Your task to perform on an android device: Go to display settings Image 0: 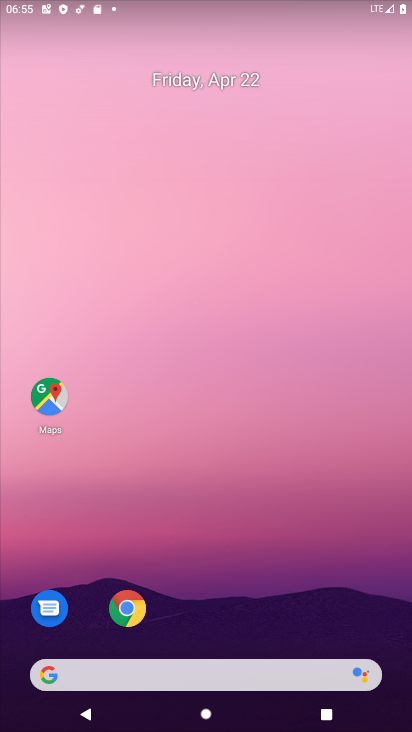
Step 0: click (205, 226)
Your task to perform on an android device: Go to display settings Image 1: 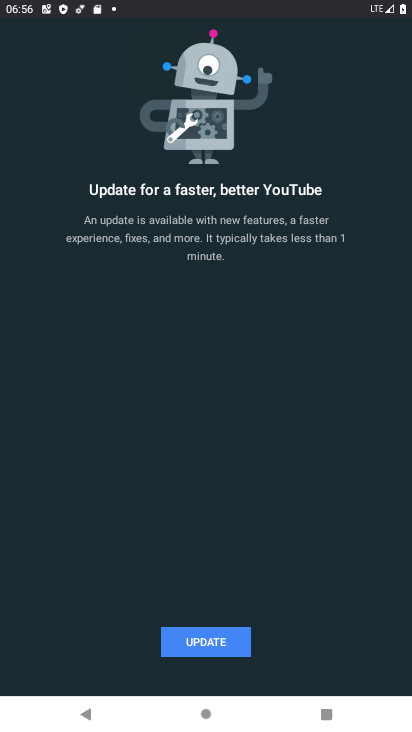
Step 1: press home button
Your task to perform on an android device: Go to display settings Image 2: 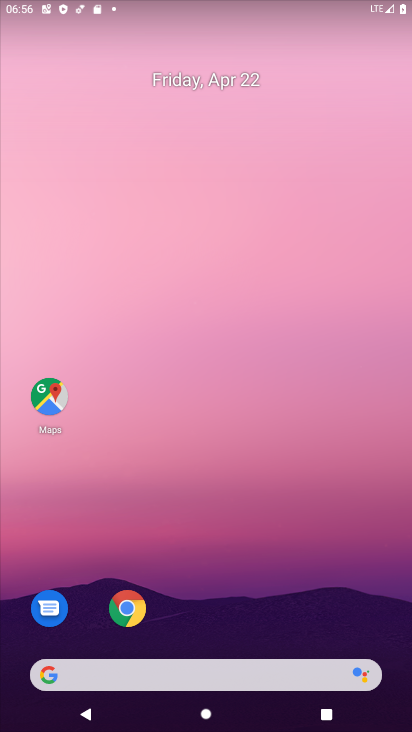
Step 2: drag from (241, 573) to (162, 230)
Your task to perform on an android device: Go to display settings Image 3: 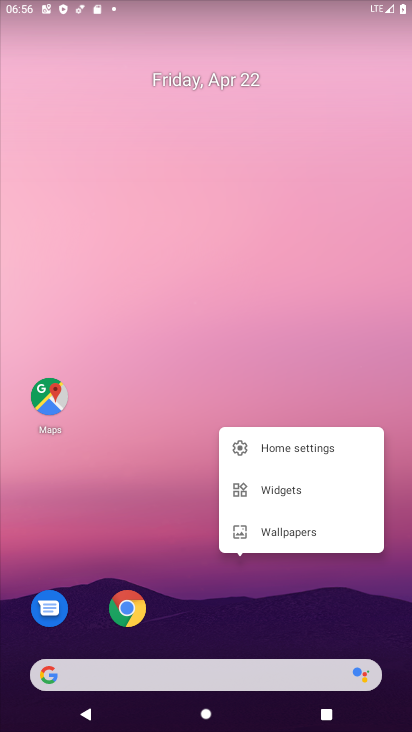
Step 3: drag from (188, 598) to (160, 184)
Your task to perform on an android device: Go to display settings Image 4: 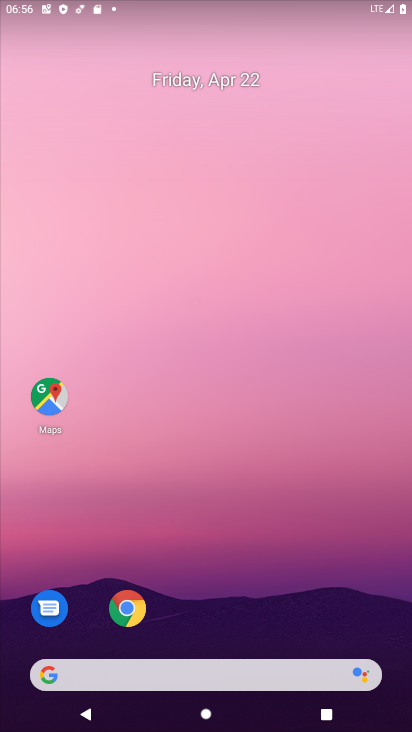
Step 4: drag from (222, 565) to (203, 162)
Your task to perform on an android device: Go to display settings Image 5: 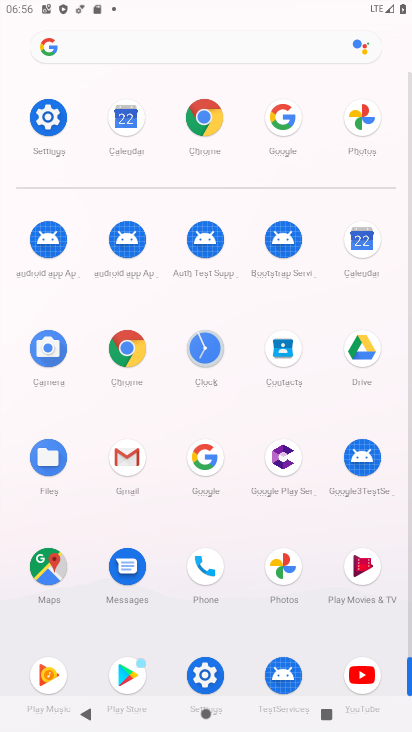
Step 5: click (51, 123)
Your task to perform on an android device: Go to display settings Image 6: 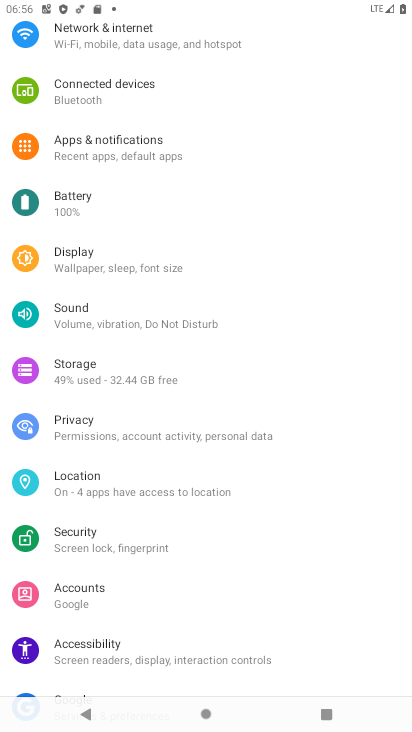
Step 6: click (71, 261)
Your task to perform on an android device: Go to display settings Image 7: 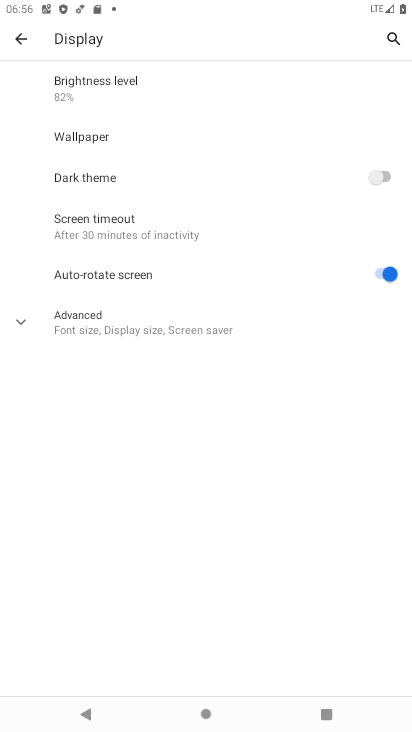
Step 7: task complete